Your task to perform on an android device: turn notification dots off Image 0: 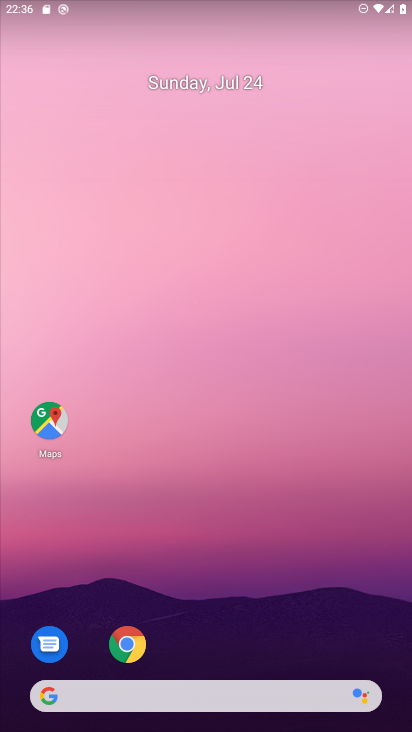
Step 0: drag from (382, 639) to (355, 115)
Your task to perform on an android device: turn notification dots off Image 1: 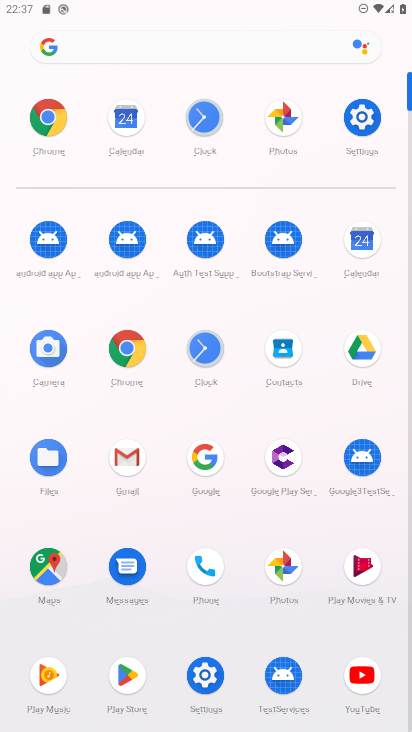
Step 1: click (207, 676)
Your task to perform on an android device: turn notification dots off Image 2: 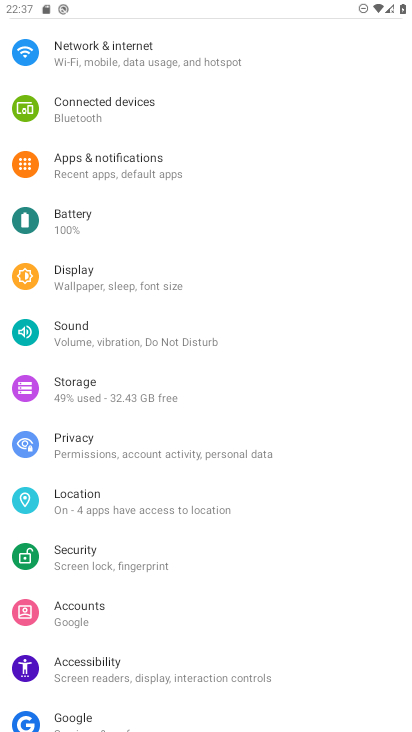
Step 2: click (88, 150)
Your task to perform on an android device: turn notification dots off Image 3: 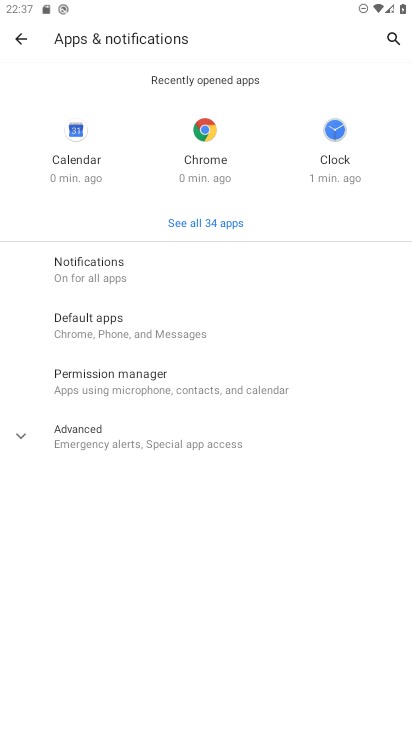
Step 3: click (93, 263)
Your task to perform on an android device: turn notification dots off Image 4: 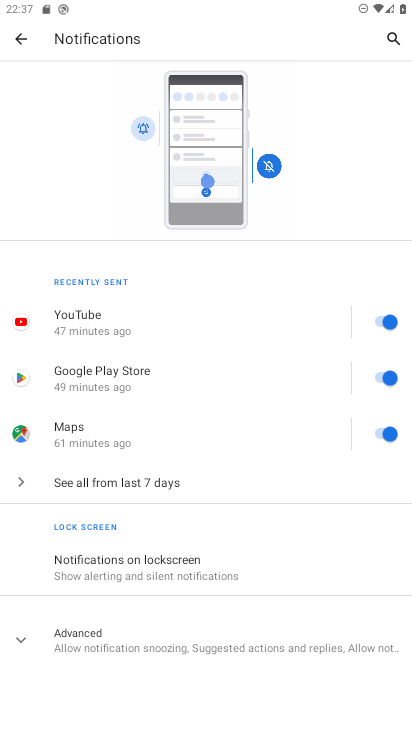
Step 4: click (14, 636)
Your task to perform on an android device: turn notification dots off Image 5: 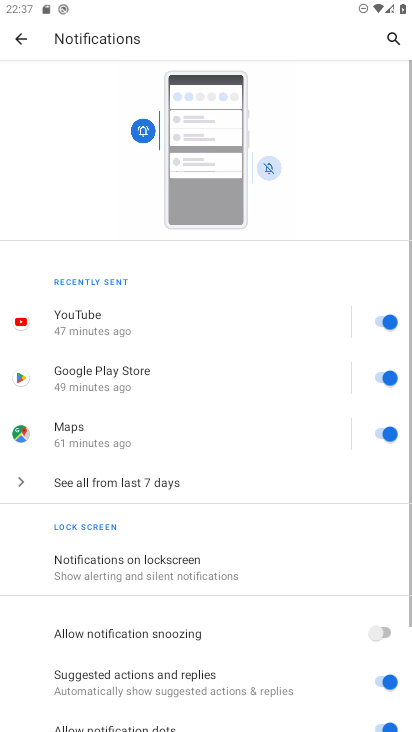
Step 5: drag from (283, 633) to (313, 224)
Your task to perform on an android device: turn notification dots off Image 6: 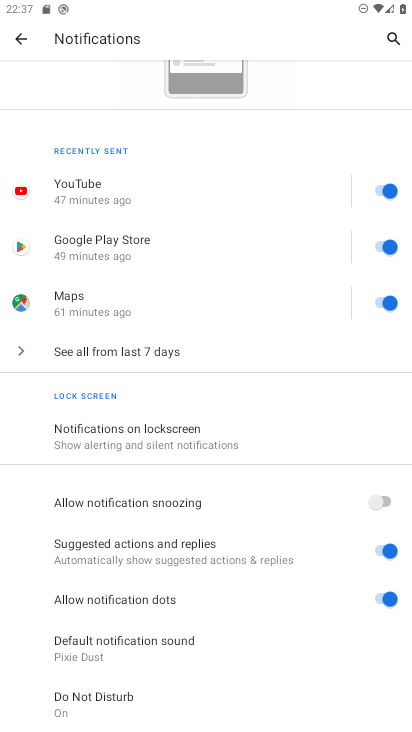
Step 6: click (377, 599)
Your task to perform on an android device: turn notification dots off Image 7: 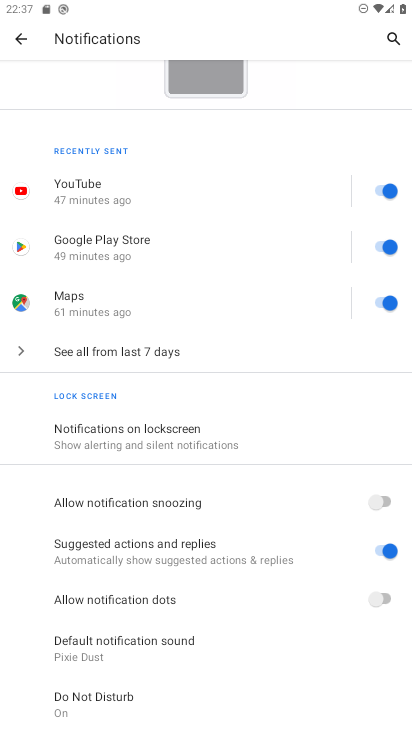
Step 7: task complete